Your task to perform on an android device: Open Google Chrome and click the shortcut for Amazon.com Image 0: 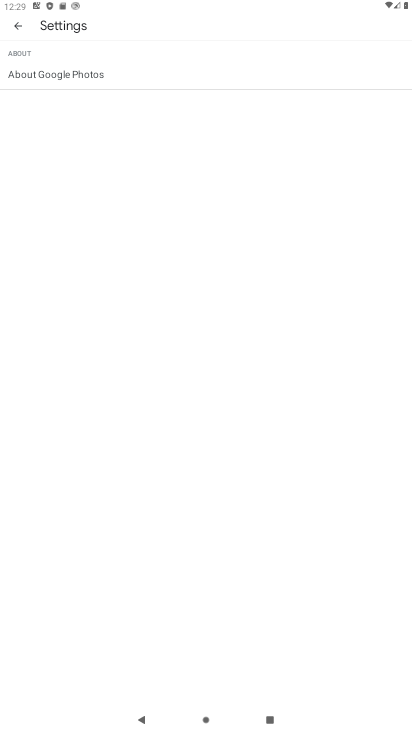
Step 0: press home button
Your task to perform on an android device: Open Google Chrome and click the shortcut for Amazon.com Image 1: 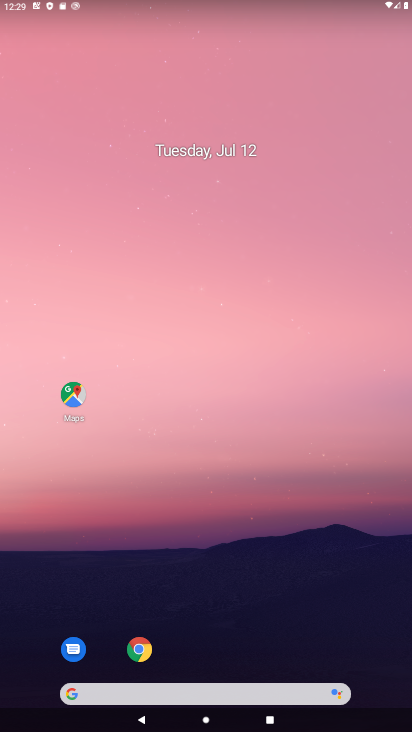
Step 1: drag from (385, 685) to (225, 10)
Your task to perform on an android device: Open Google Chrome and click the shortcut for Amazon.com Image 2: 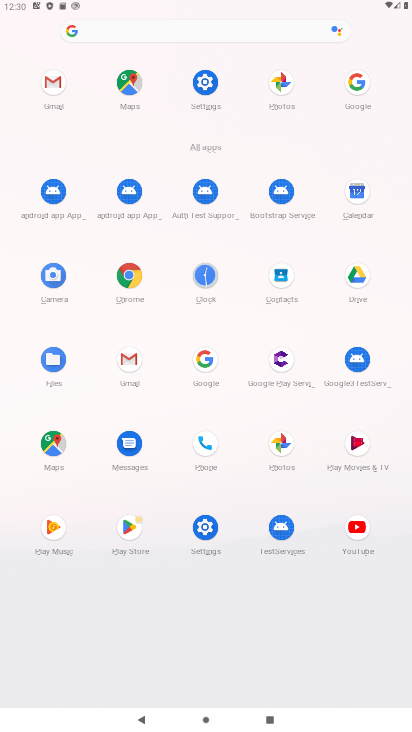
Step 2: click (131, 264)
Your task to perform on an android device: Open Google Chrome and click the shortcut for Amazon.com Image 3: 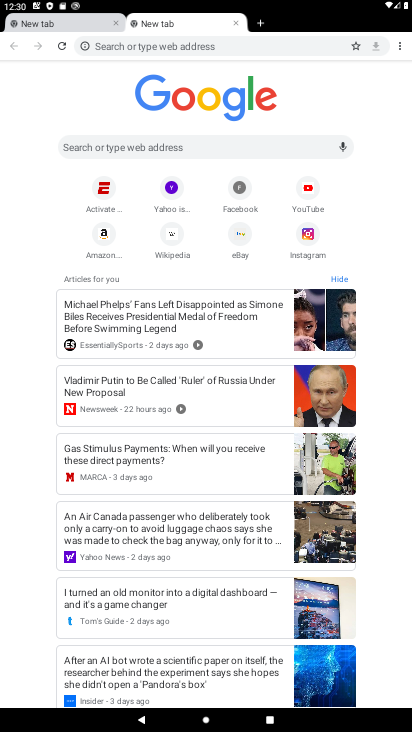
Step 3: click (103, 232)
Your task to perform on an android device: Open Google Chrome and click the shortcut for Amazon.com Image 4: 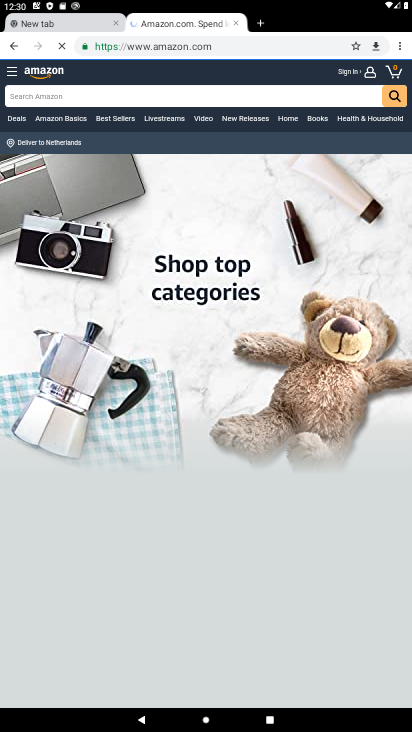
Step 4: task complete